Your task to perform on an android device: Open Reddit.com Image 0: 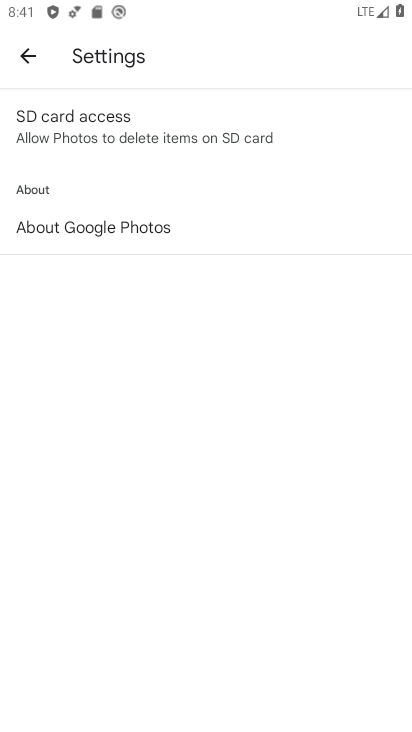
Step 0: press home button
Your task to perform on an android device: Open Reddit.com Image 1: 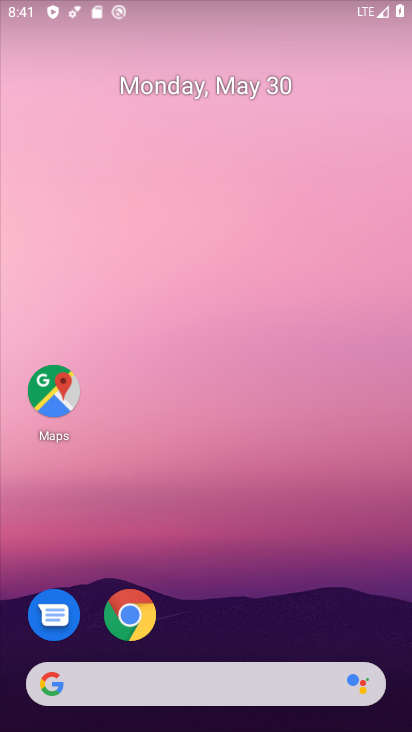
Step 1: click (137, 623)
Your task to perform on an android device: Open Reddit.com Image 2: 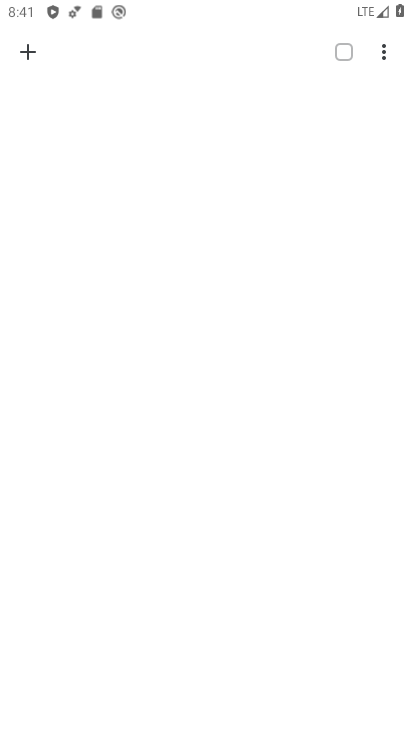
Step 2: click (16, 49)
Your task to perform on an android device: Open Reddit.com Image 3: 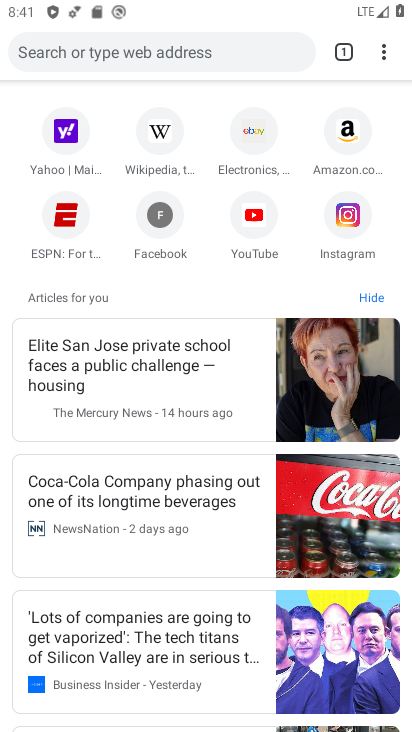
Step 3: type "reddit.com"
Your task to perform on an android device: Open Reddit.com Image 4: 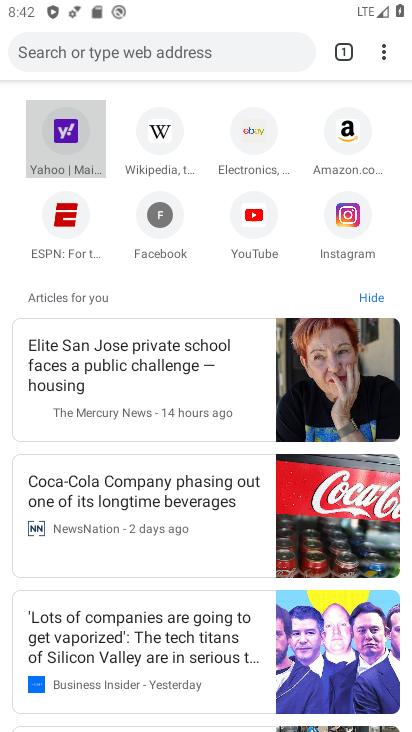
Step 4: click (176, 59)
Your task to perform on an android device: Open Reddit.com Image 5: 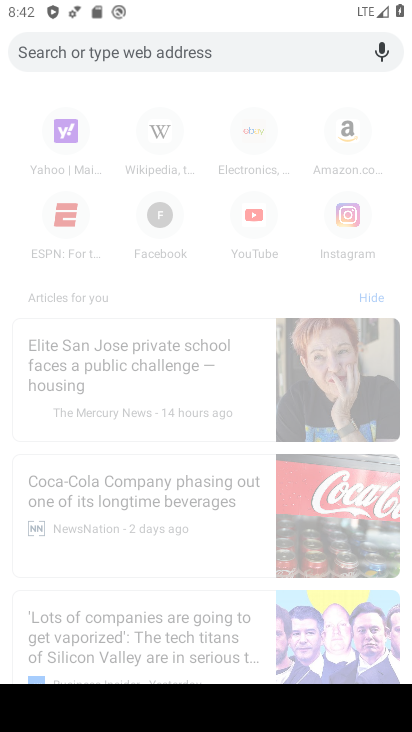
Step 5: type "reddit"
Your task to perform on an android device: Open Reddit.com Image 6: 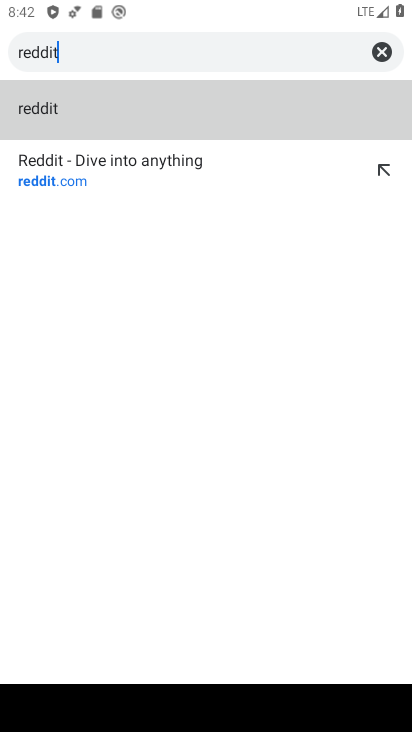
Step 6: click (176, 170)
Your task to perform on an android device: Open Reddit.com Image 7: 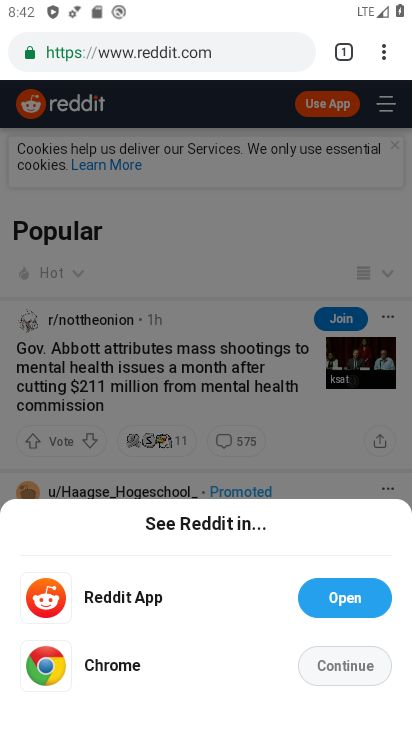
Step 7: task complete